Your task to perform on an android device: toggle improve location accuracy Image 0: 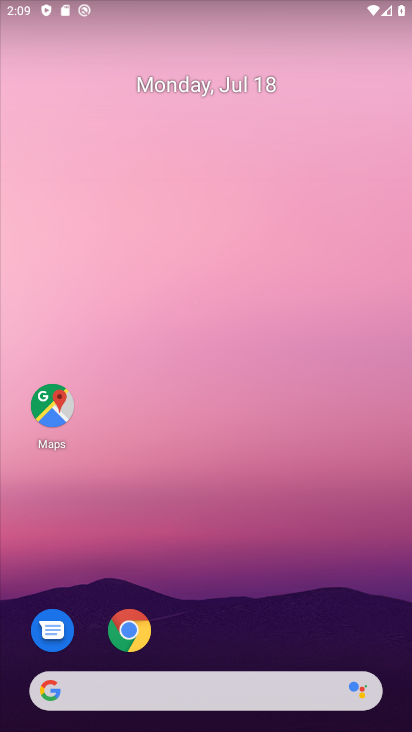
Step 0: press home button
Your task to perform on an android device: toggle improve location accuracy Image 1: 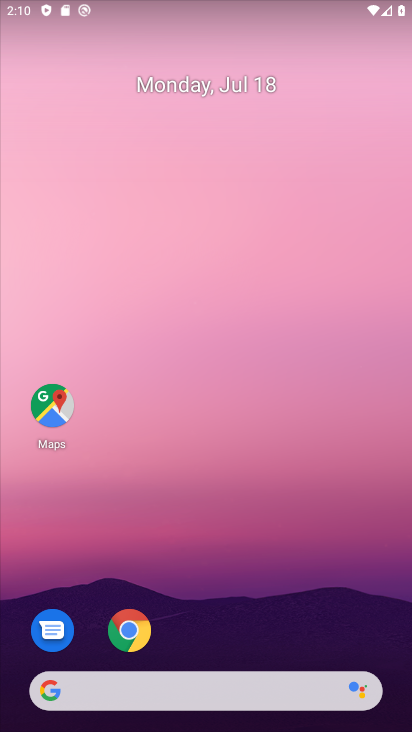
Step 1: press home button
Your task to perform on an android device: toggle improve location accuracy Image 2: 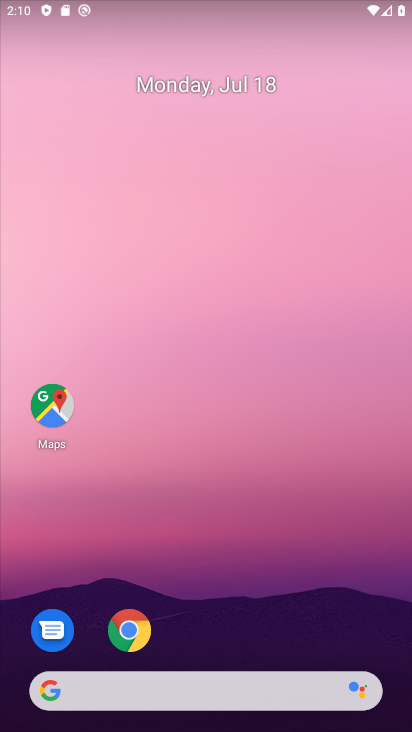
Step 2: drag from (239, 594) to (236, 102)
Your task to perform on an android device: toggle improve location accuracy Image 3: 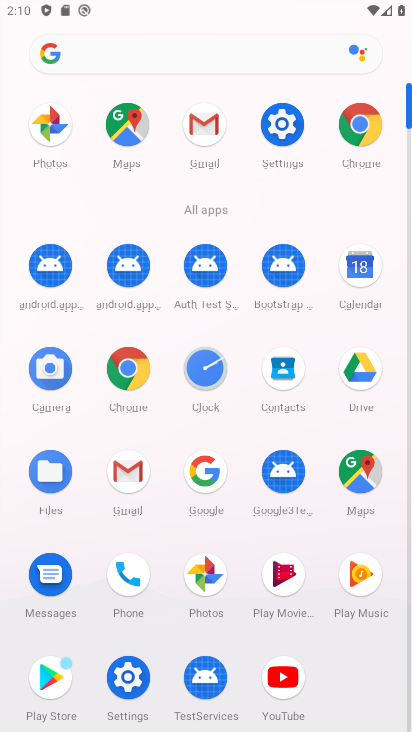
Step 3: click (280, 117)
Your task to perform on an android device: toggle improve location accuracy Image 4: 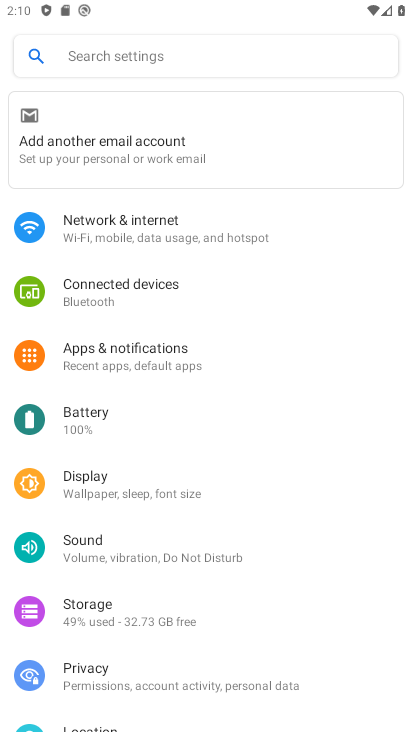
Step 4: drag from (289, 610) to (301, 209)
Your task to perform on an android device: toggle improve location accuracy Image 5: 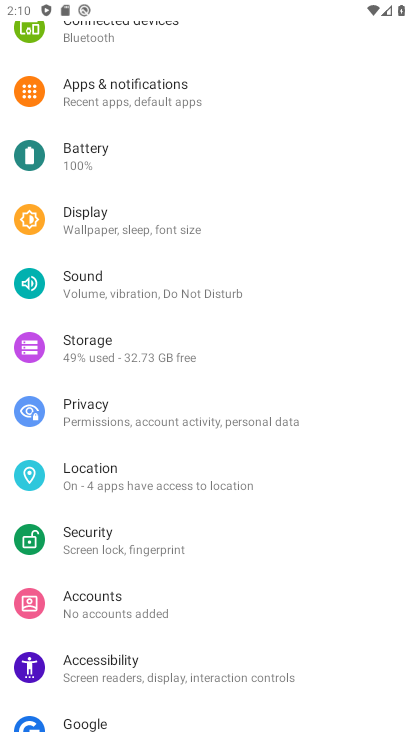
Step 5: click (75, 476)
Your task to perform on an android device: toggle improve location accuracy Image 6: 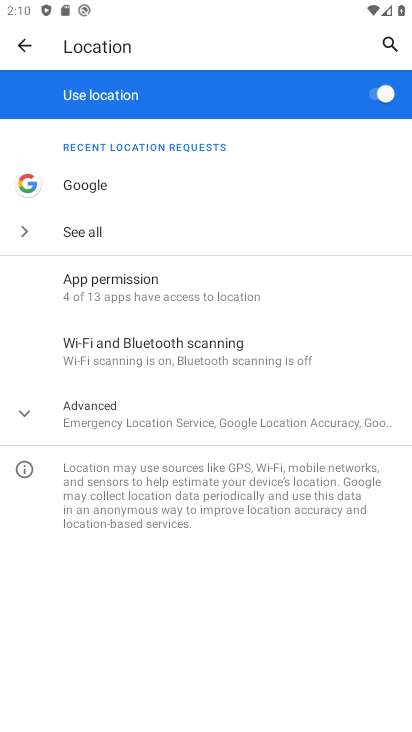
Step 6: click (95, 419)
Your task to perform on an android device: toggle improve location accuracy Image 7: 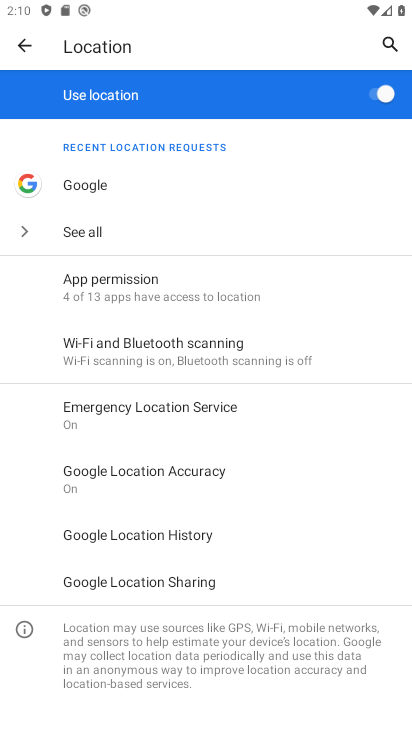
Step 7: click (143, 472)
Your task to perform on an android device: toggle improve location accuracy Image 8: 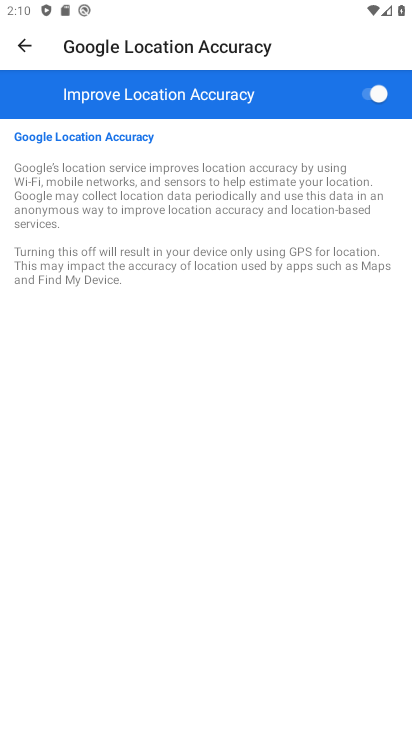
Step 8: click (378, 95)
Your task to perform on an android device: toggle improve location accuracy Image 9: 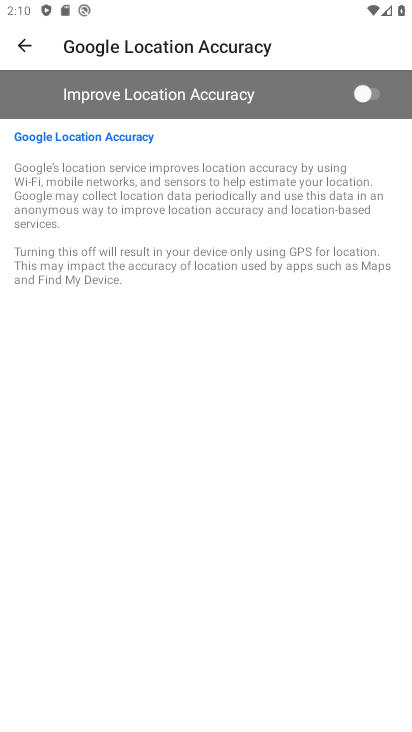
Step 9: task complete